Your task to perform on an android device: Turn off the flashlight Image 0: 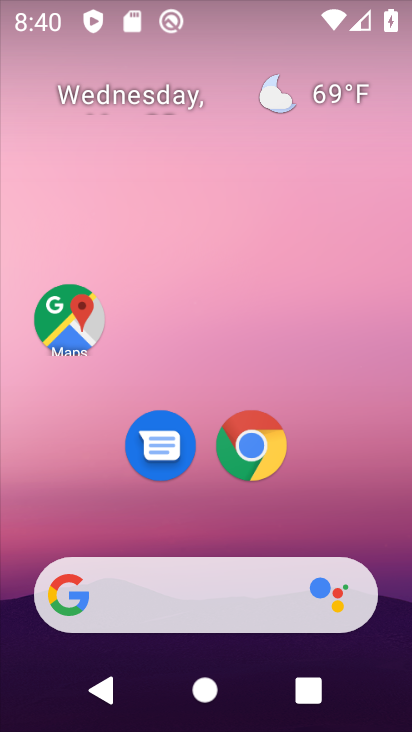
Step 0: drag from (217, 9) to (223, 452)
Your task to perform on an android device: Turn off the flashlight Image 1: 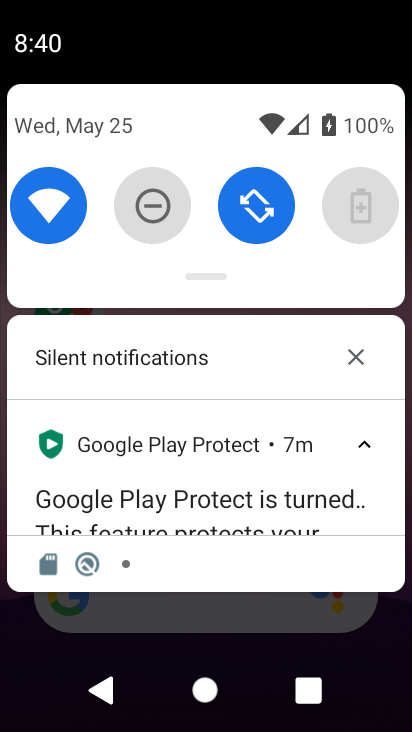
Step 1: task complete